Your task to perform on an android device: check google app version Image 0: 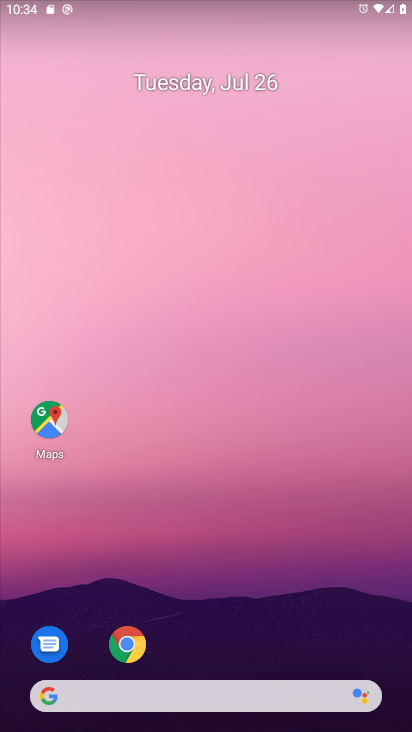
Step 0: click (52, 696)
Your task to perform on an android device: check google app version Image 1: 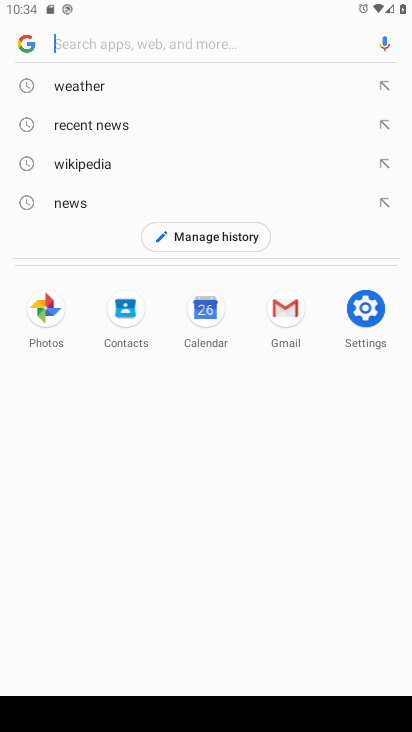
Step 1: click (25, 45)
Your task to perform on an android device: check google app version Image 2: 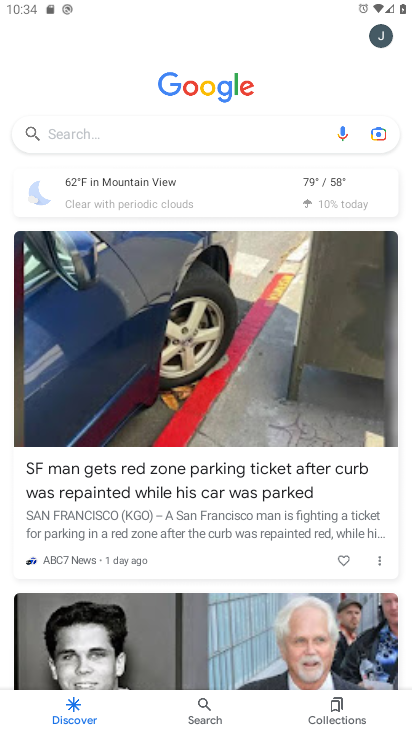
Step 2: click (380, 28)
Your task to perform on an android device: check google app version Image 3: 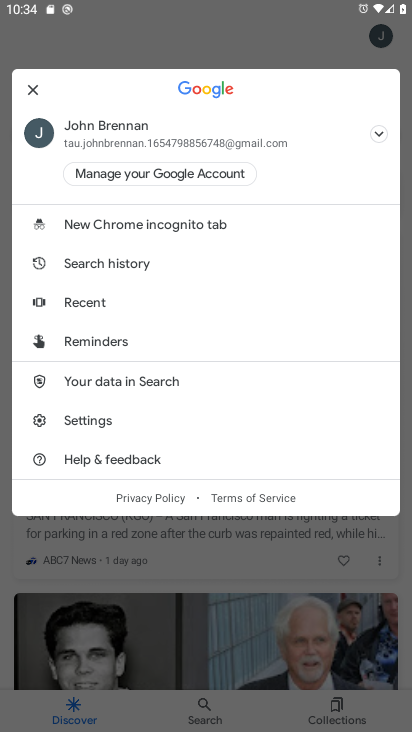
Step 3: click (105, 423)
Your task to perform on an android device: check google app version Image 4: 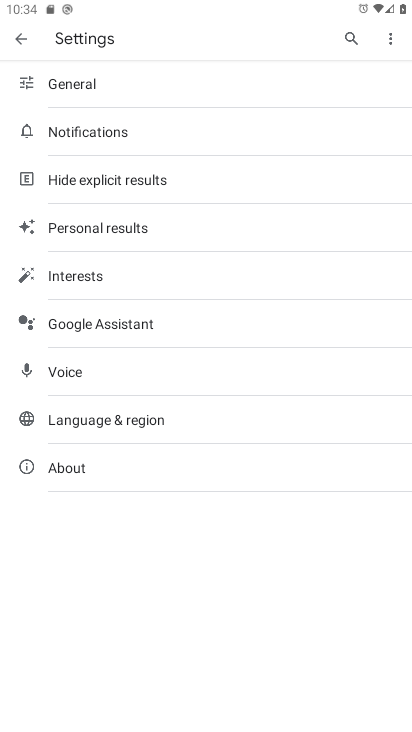
Step 4: click (119, 468)
Your task to perform on an android device: check google app version Image 5: 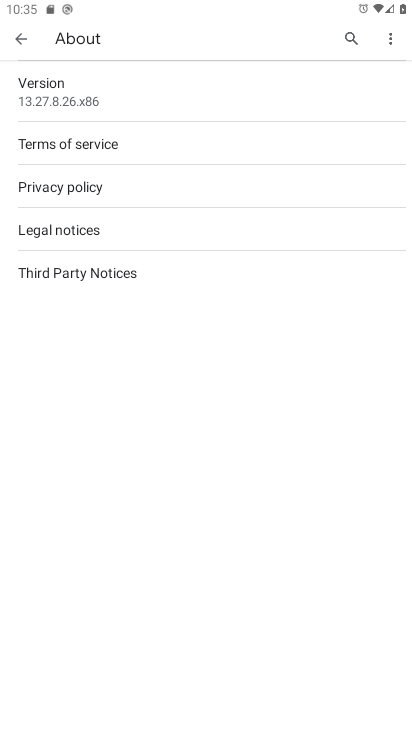
Step 5: task complete